Your task to perform on an android device: Open calendar and show me the third week of next month Image 0: 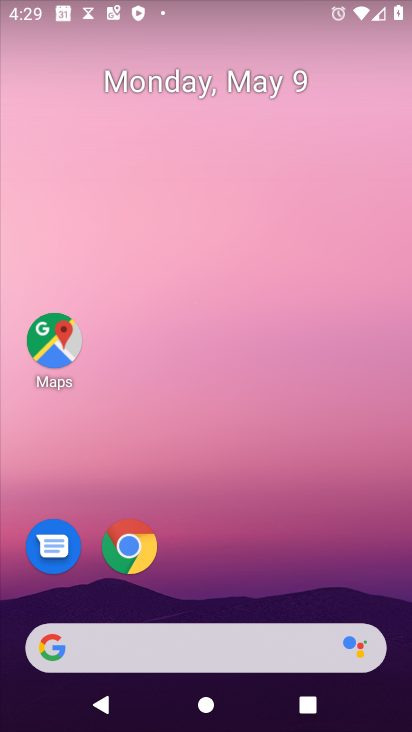
Step 0: drag from (306, 521) to (307, 135)
Your task to perform on an android device: Open calendar and show me the third week of next month Image 1: 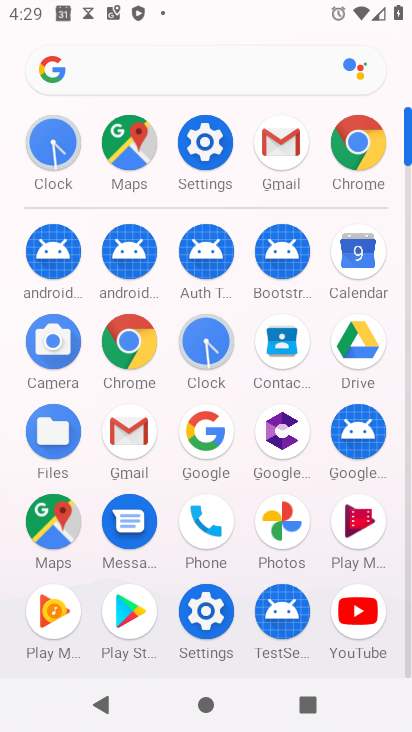
Step 1: click (364, 259)
Your task to perform on an android device: Open calendar and show me the third week of next month Image 2: 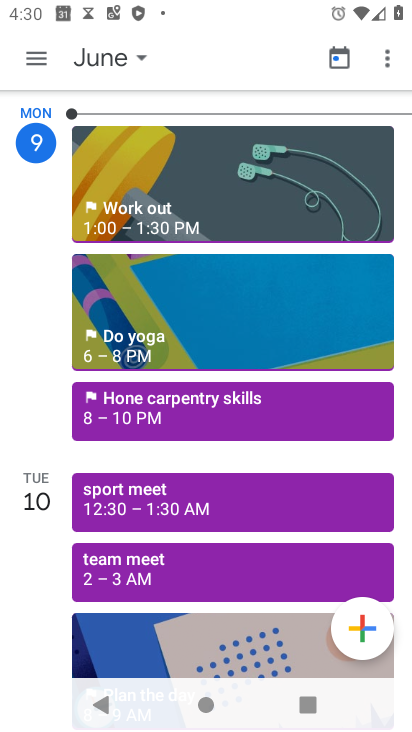
Step 2: click (123, 68)
Your task to perform on an android device: Open calendar and show me the third week of next month Image 3: 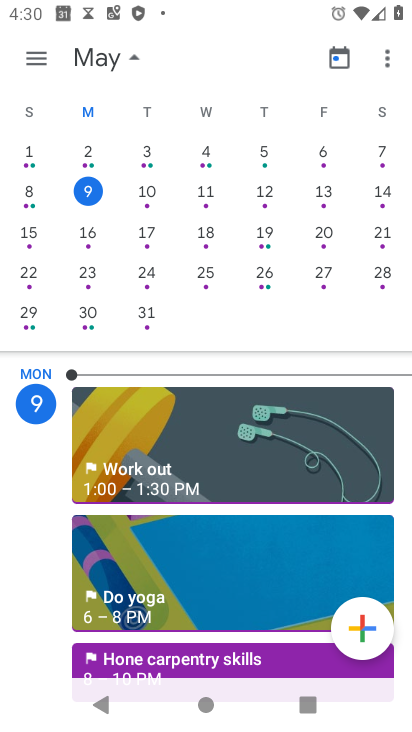
Step 3: drag from (328, 269) to (18, 206)
Your task to perform on an android device: Open calendar and show me the third week of next month Image 4: 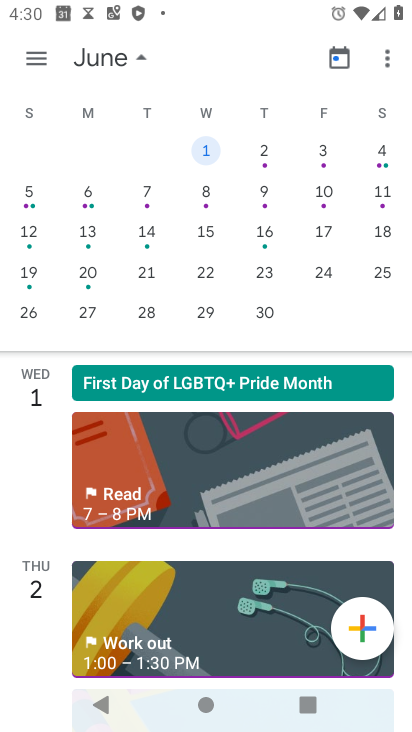
Step 4: click (134, 275)
Your task to perform on an android device: Open calendar and show me the third week of next month Image 5: 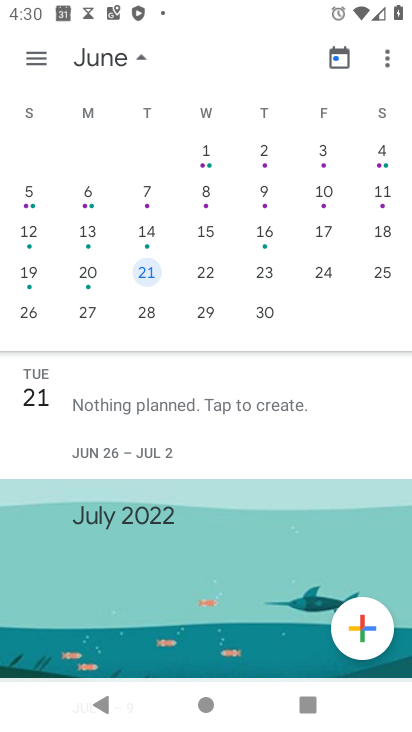
Step 5: task complete